Your task to perform on an android device: Open settings Image 0: 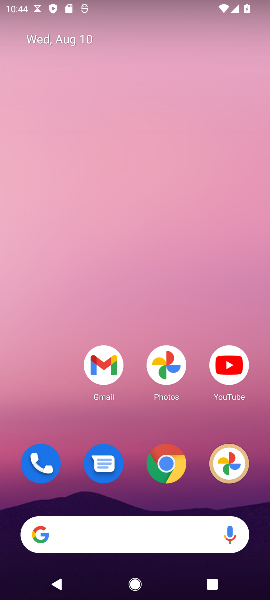
Step 0: drag from (32, 579) to (125, 242)
Your task to perform on an android device: Open settings Image 1: 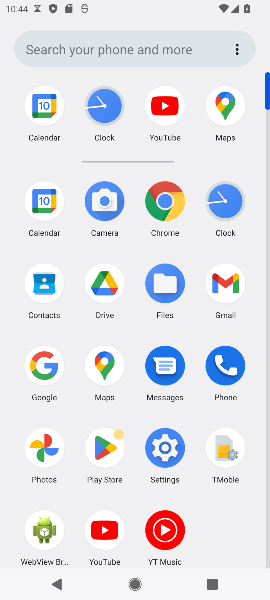
Step 1: click (158, 447)
Your task to perform on an android device: Open settings Image 2: 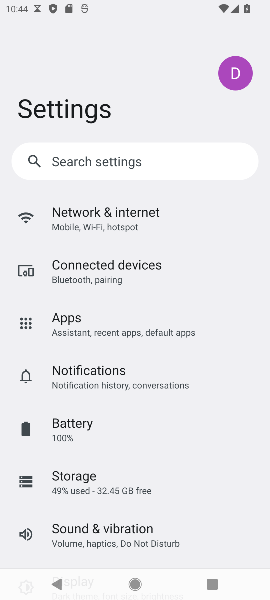
Step 2: task complete